Your task to perform on an android device: Open accessibility settings Image 0: 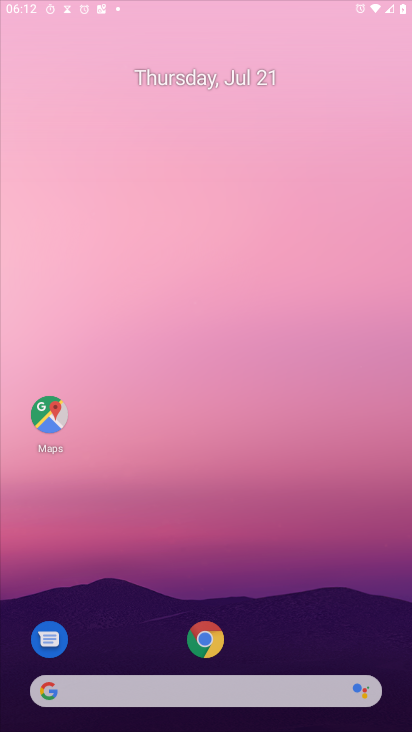
Step 0: press home button
Your task to perform on an android device: Open accessibility settings Image 1: 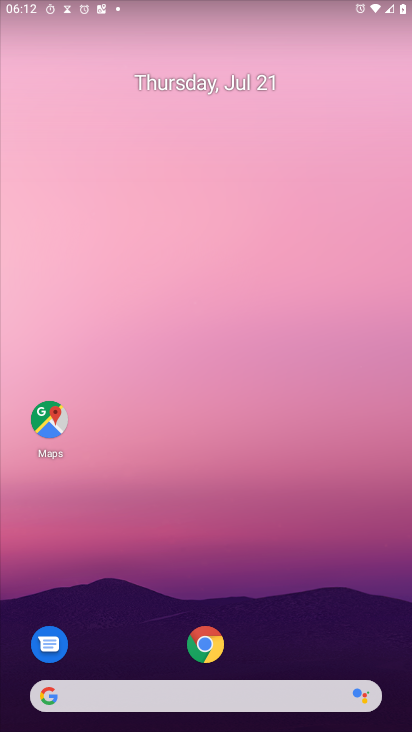
Step 1: drag from (324, 604) to (297, 27)
Your task to perform on an android device: Open accessibility settings Image 2: 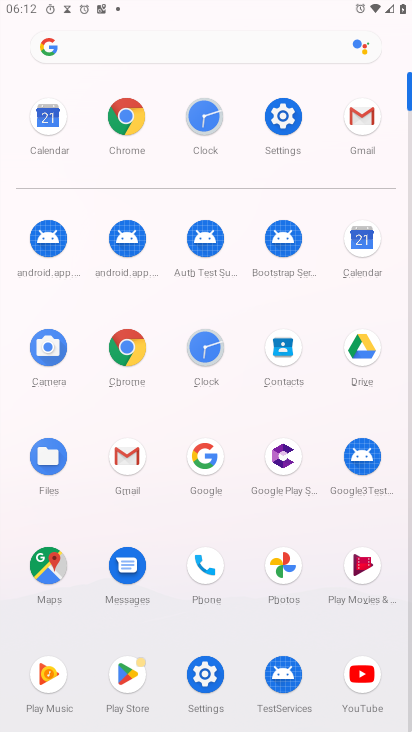
Step 2: click (285, 114)
Your task to perform on an android device: Open accessibility settings Image 3: 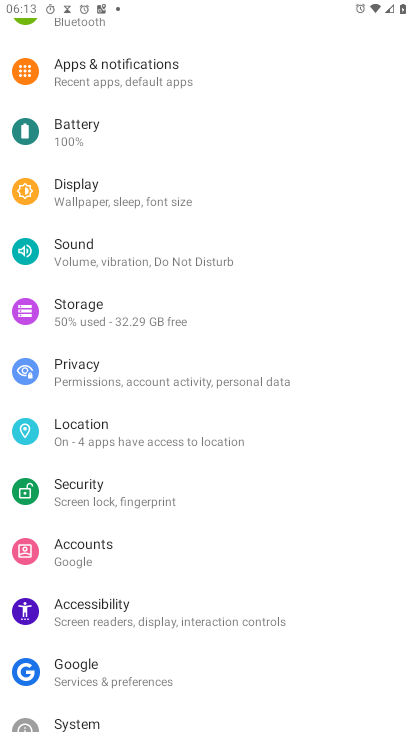
Step 3: click (73, 615)
Your task to perform on an android device: Open accessibility settings Image 4: 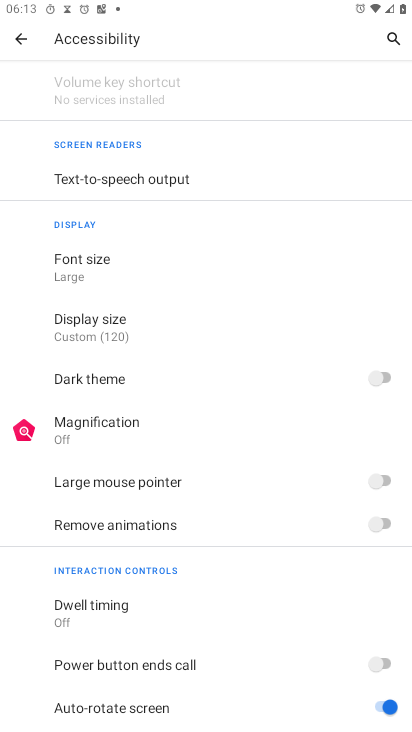
Step 4: task complete